Your task to perform on an android device: open a bookmark in the chrome app Image 0: 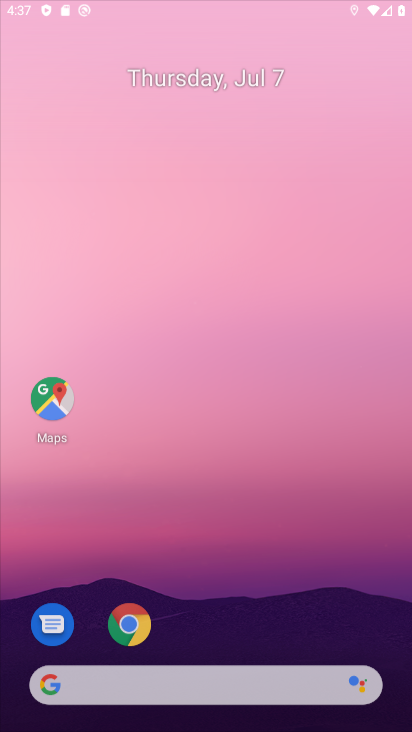
Step 0: press back button
Your task to perform on an android device: open a bookmark in the chrome app Image 1: 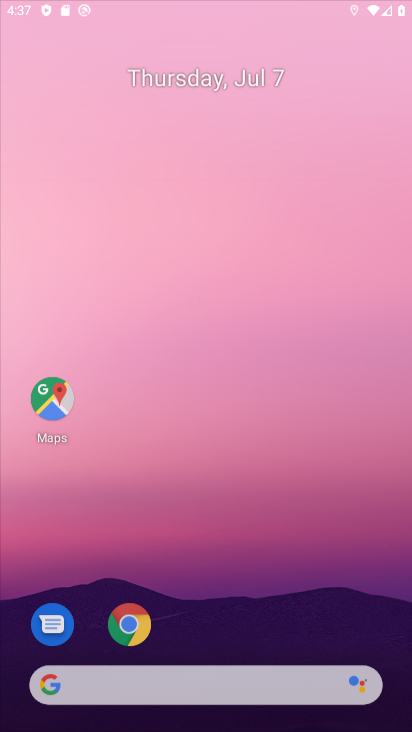
Step 1: click (200, 0)
Your task to perform on an android device: open a bookmark in the chrome app Image 2: 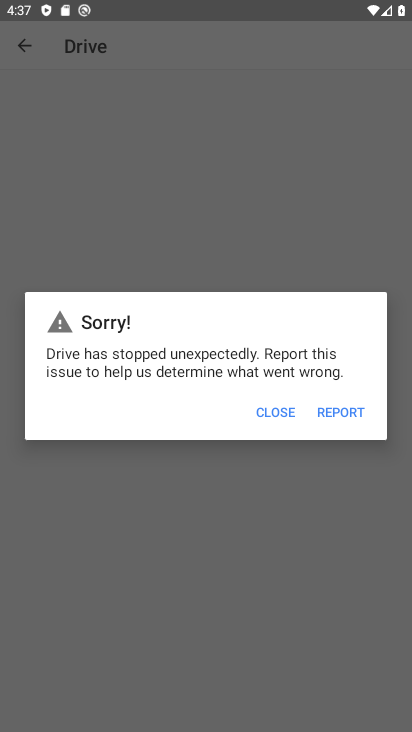
Step 2: press home button
Your task to perform on an android device: open a bookmark in the chrome app Image 3: 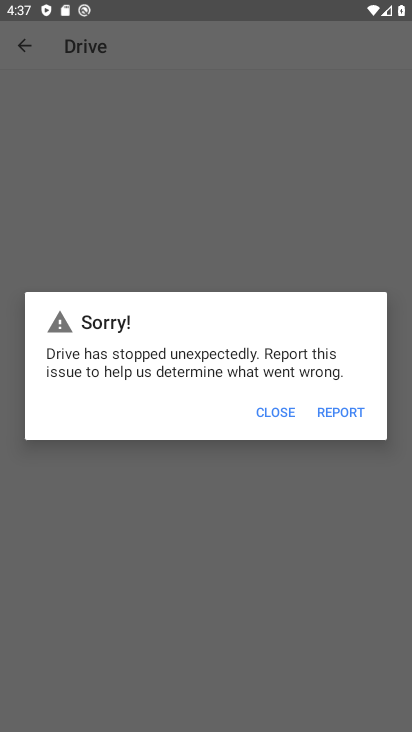
Step 3: click (134, 7)
Your task to perform on an android device: open a bookmark in the chrome app Image 4: 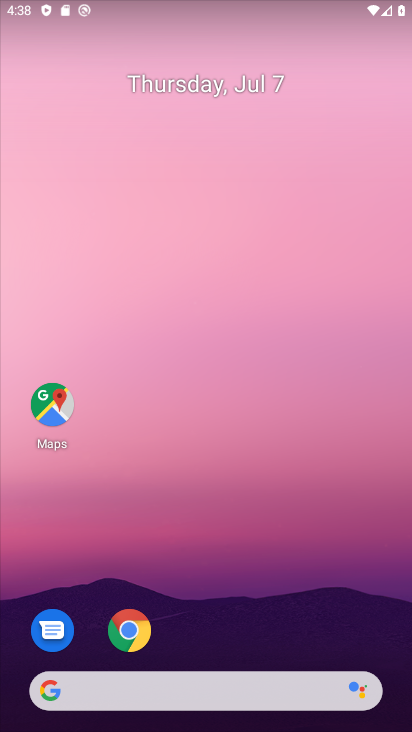
Step 4: drag from (253, 626) to (206, 99)
Your task to perform on an android device: open a bookmark in the chrome app Image 5: 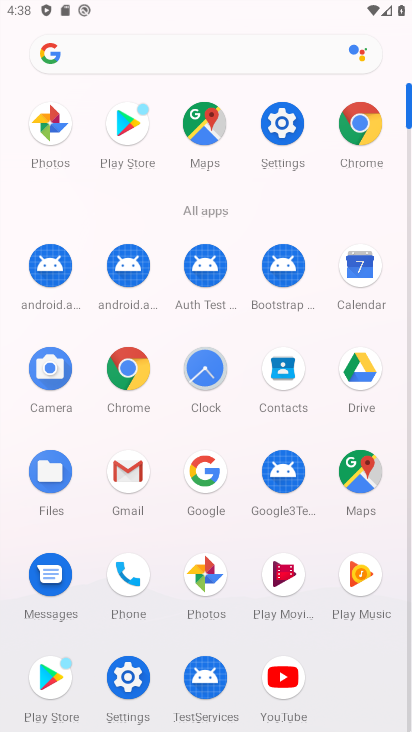
Step 5: click (122, 371)
Your task to perform on an android device: open a bookmark in the chrome app Image 6: 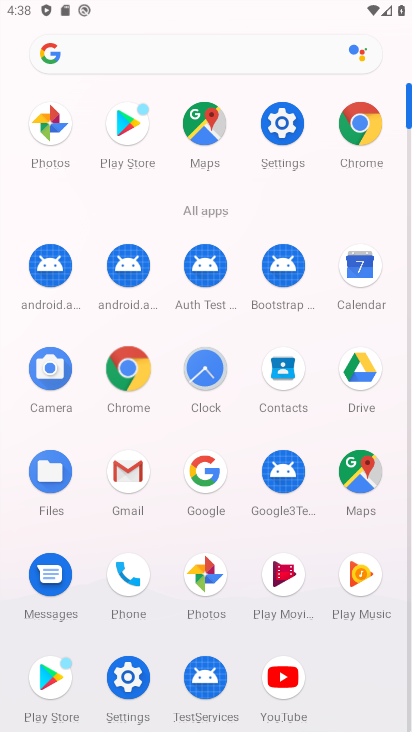
Step 6: click (128, 369)
Your task to perform on an android device: open a bookmark in the chrome app Image 7: 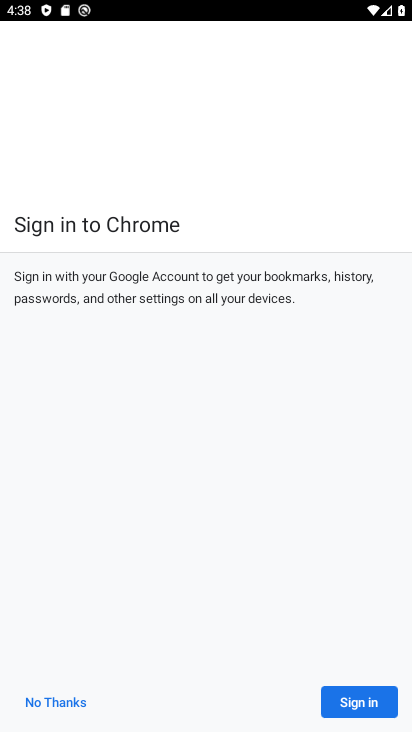
Step 7: click (71, 701)
Your task to perform on an android device: open a bookmark in the chrome app Image 8: 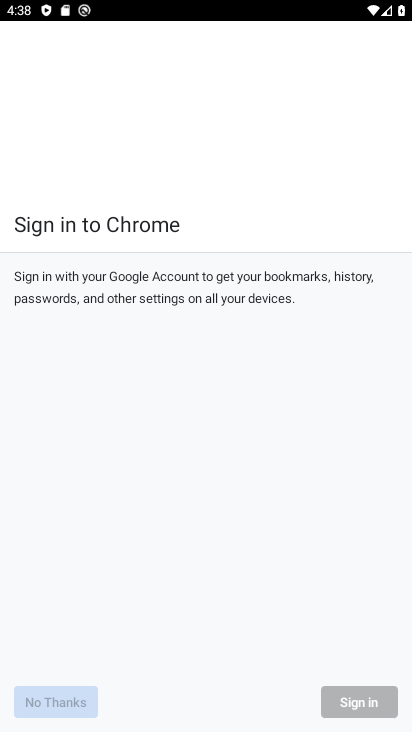
Step 8: click (71, 701)
Your task to perform on an android device: open a bookmark in the chrome app Image 9: 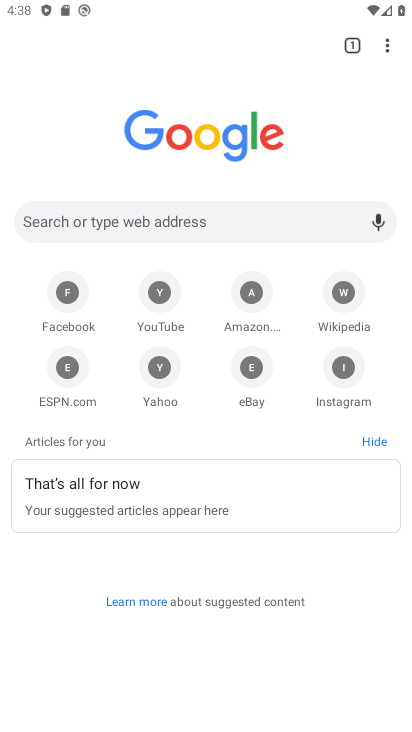
Step 9: drag from (380, 41) to (243, 180)
Your task to perform on an android device: open a bookmark in the chrome app Image 10: 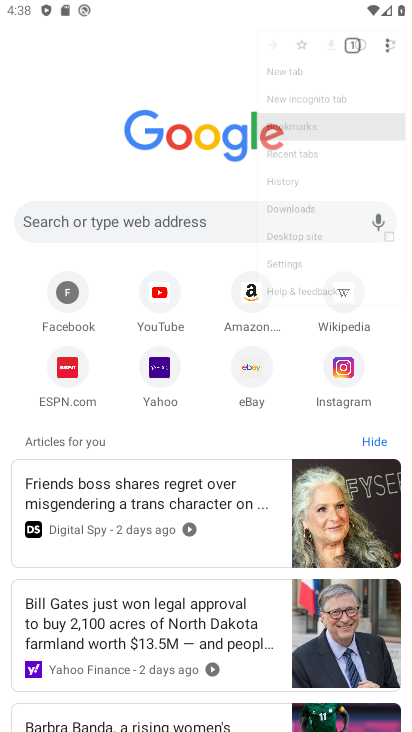
Step 10: click (246, 180)
Your task to perform on an android device: open a bookmark in the chrome app Image 11: 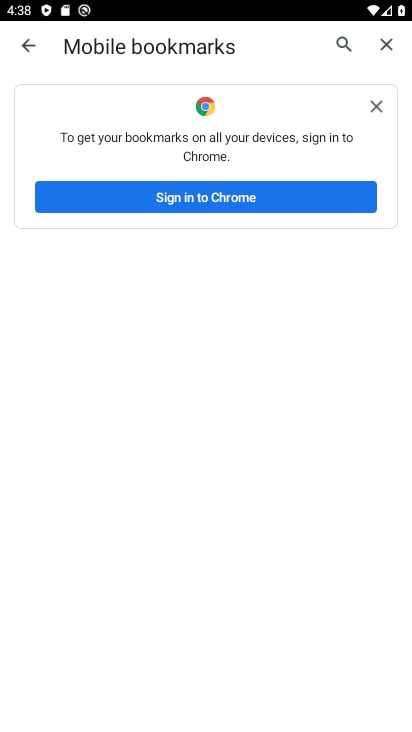
Step 11: click (381, 100)
Your task to perform on an android device: open a bookmark in the chrome app Image 12: 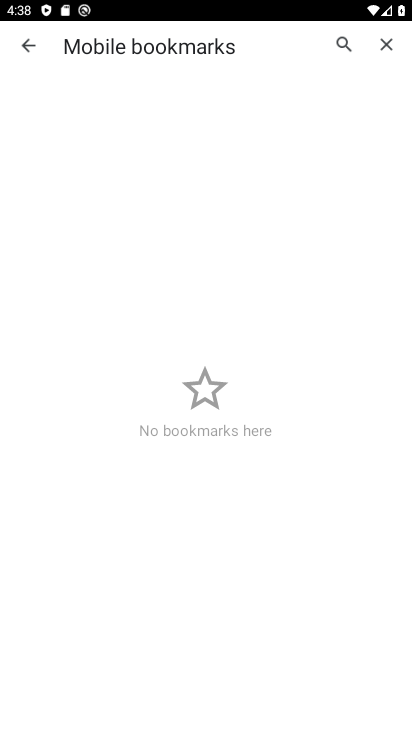
Step 12: task complete